Your task to perform on an android device: turn off notifications in google photos Image 0: 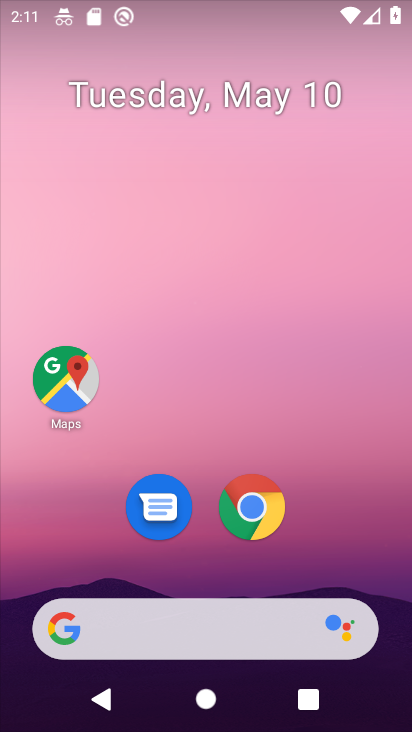
Step 0: drag from (131, 549) to (167, 214)
Your task to perform on an android device: turn off notifications in google photos Image 1: 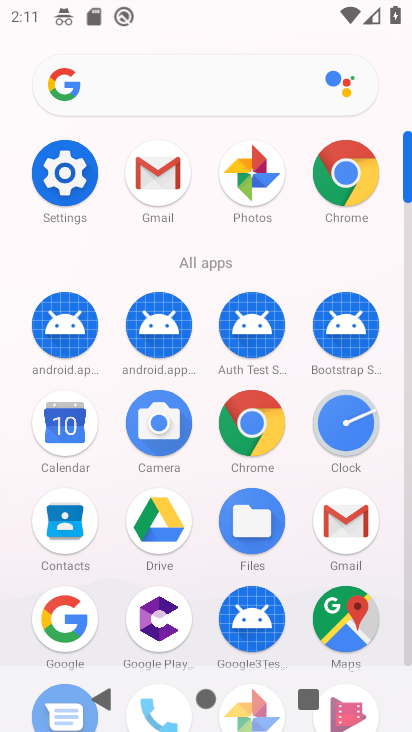
Step 1: click (250, 174)
Your task to perform on an android device: turn off notifications in google photos Image 2: 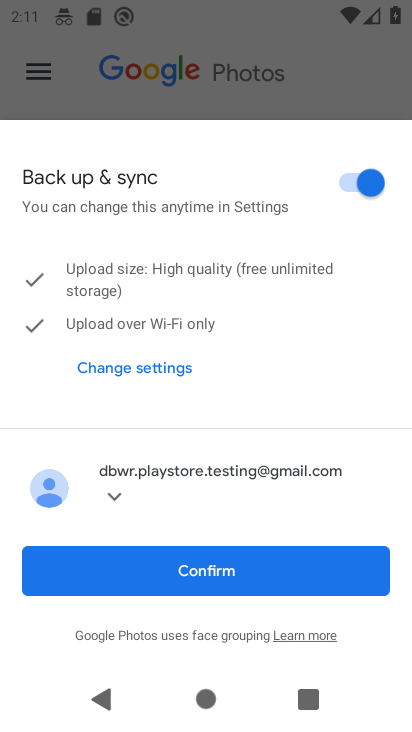
Step 2: click (206, 574)
Your task to perform on an android device: turn off notifications in google photos Image 3: 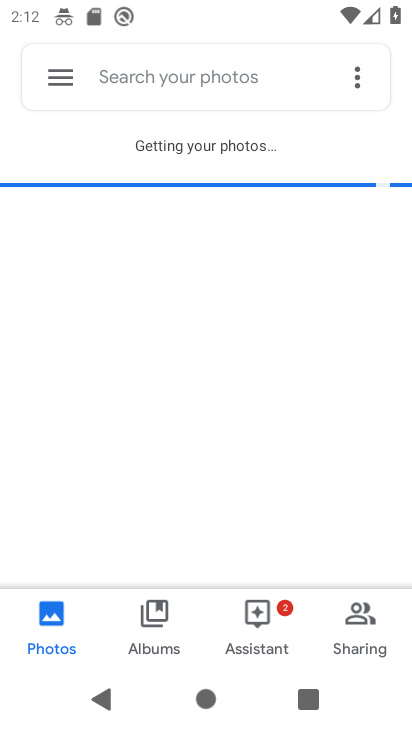
Step 3: click (62, 83)
Your task to perform on an android device: turn off notifications in google photos Image 4: 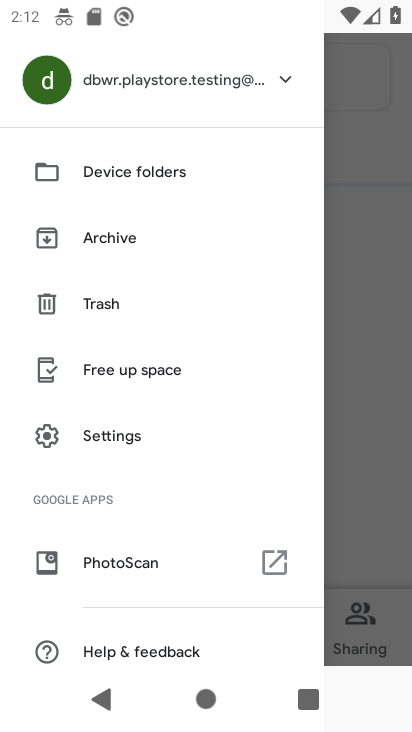
Step 4: click (102, 438)
Your task to perform on an android device: turn off notifications in google photos Image 5: 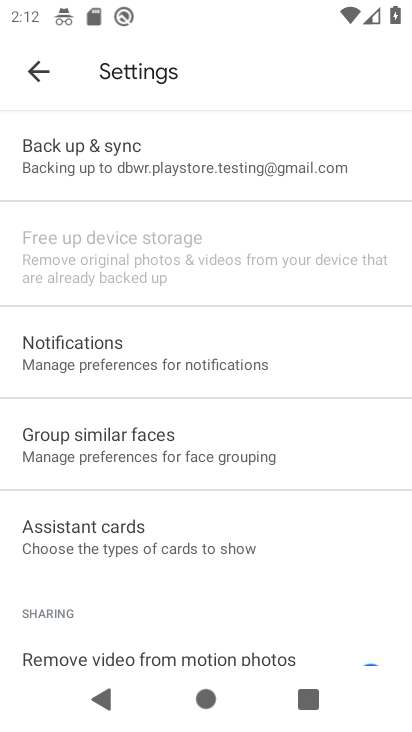
Step 5: click (165, 353)
Your task to perform on an android device: turn off notifications in google photos Image 6: 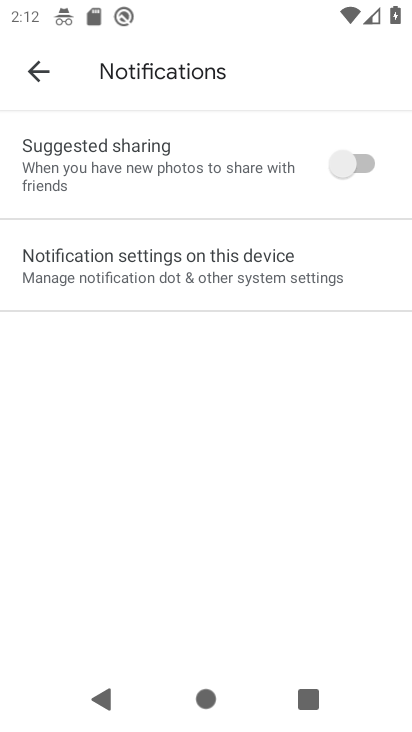
Step 6: task complete